Your task to perform on an android device: Clear the cart on costco.com. Add sony triple a to the cart on costco.com Image 0: 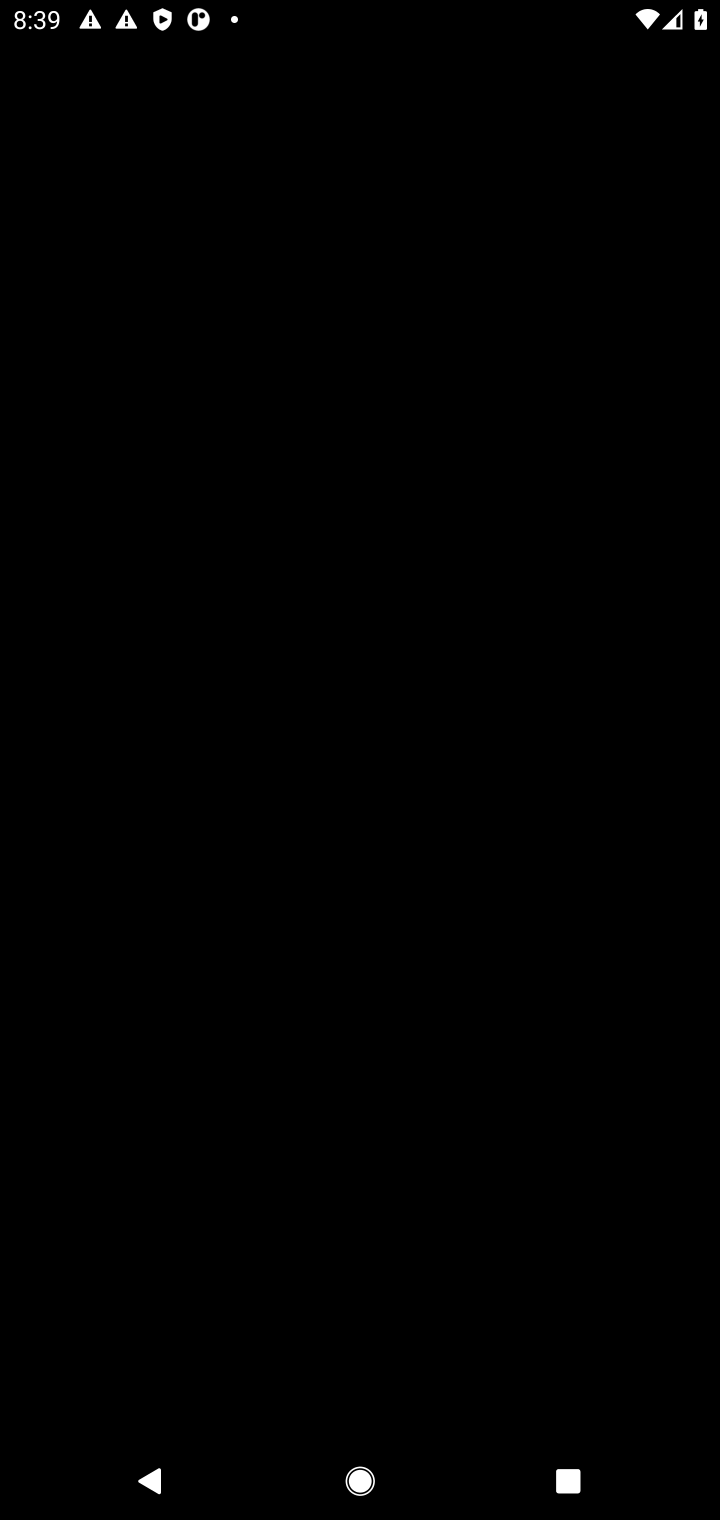
Step 0: press home button
Your task to perform on an android device: Clear the cart on costco.com. Add sony triple a to the cart on costco.com Image 1: 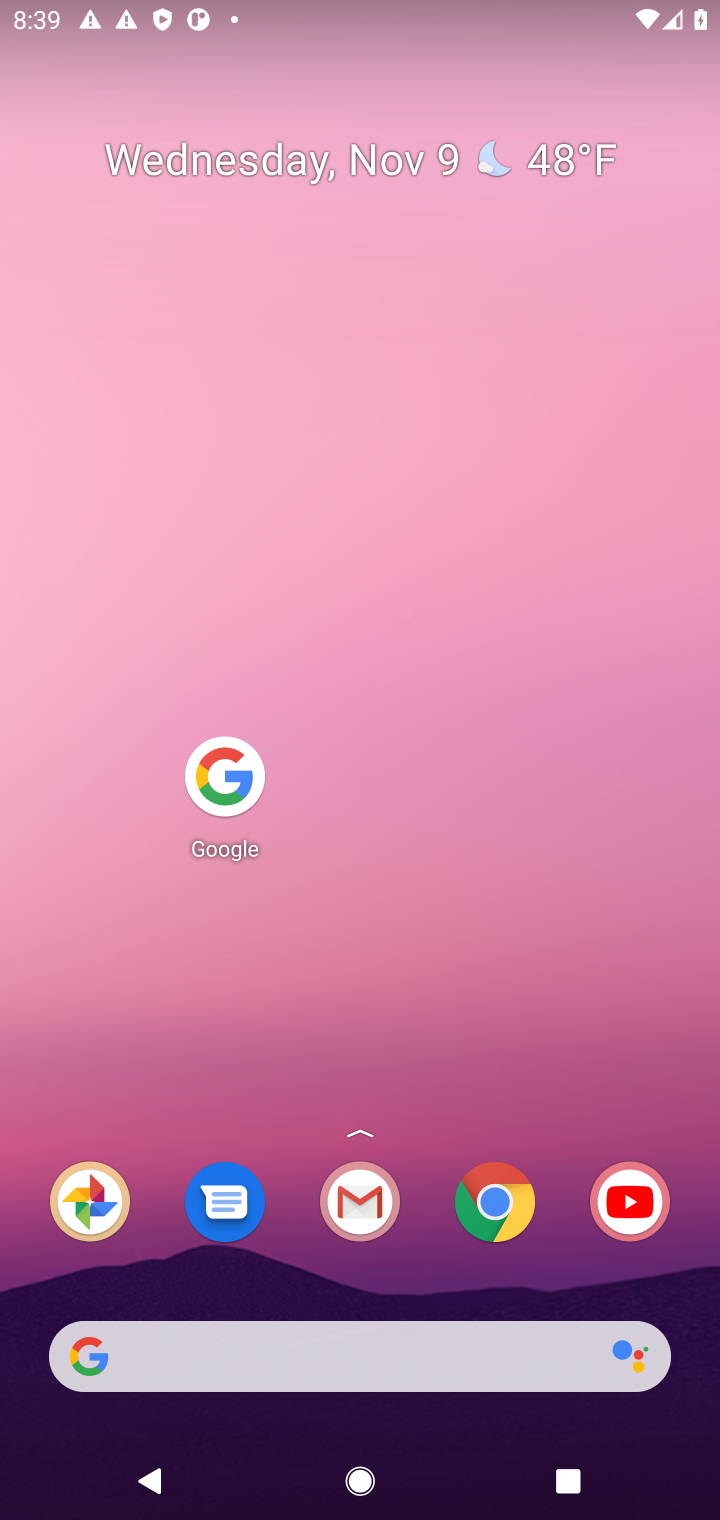
Step 1: click (231, 771)
Your task to perform on an android device: Clear the cart on costco.com. Add sony triple a to the cart on costco.com Image 2: 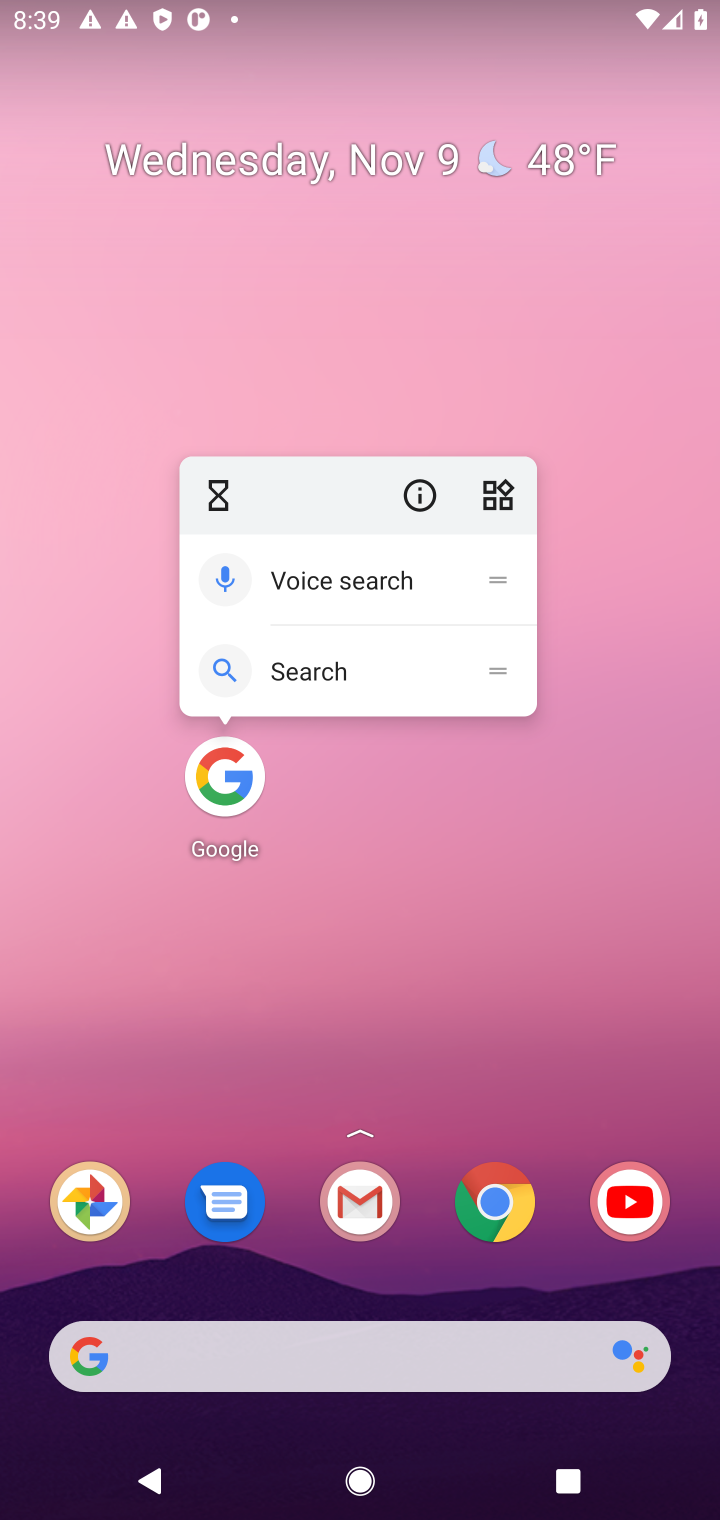
Step 2: click (231, 771)
Your task to perform on an android device: Clear the cart on costco.com. Add sony triple a to the cart on costco.com Image 3: 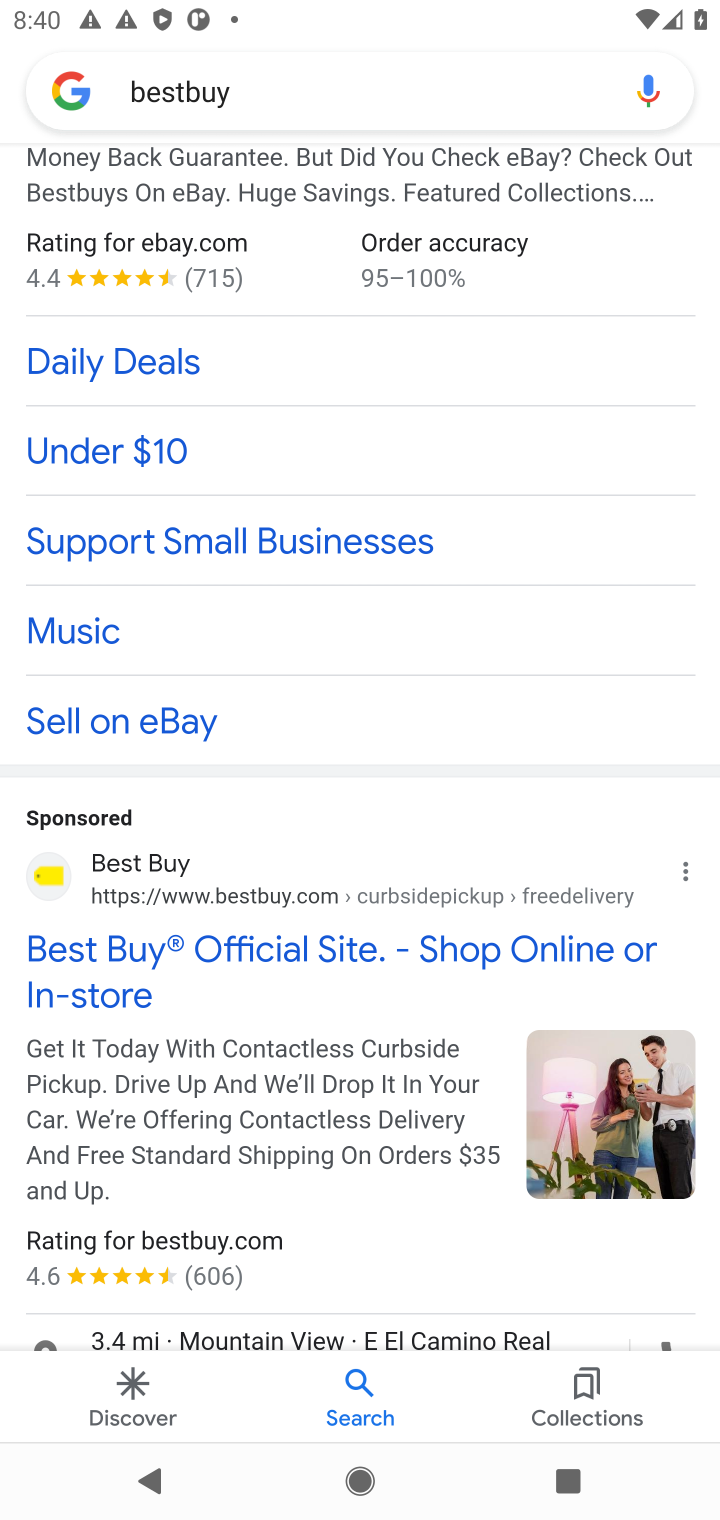
Step 3: click (316, 102)
Your task to perform on an android device: Clear the cart on costco.com. Add sony triple a to the cart on costco.com Image 4: 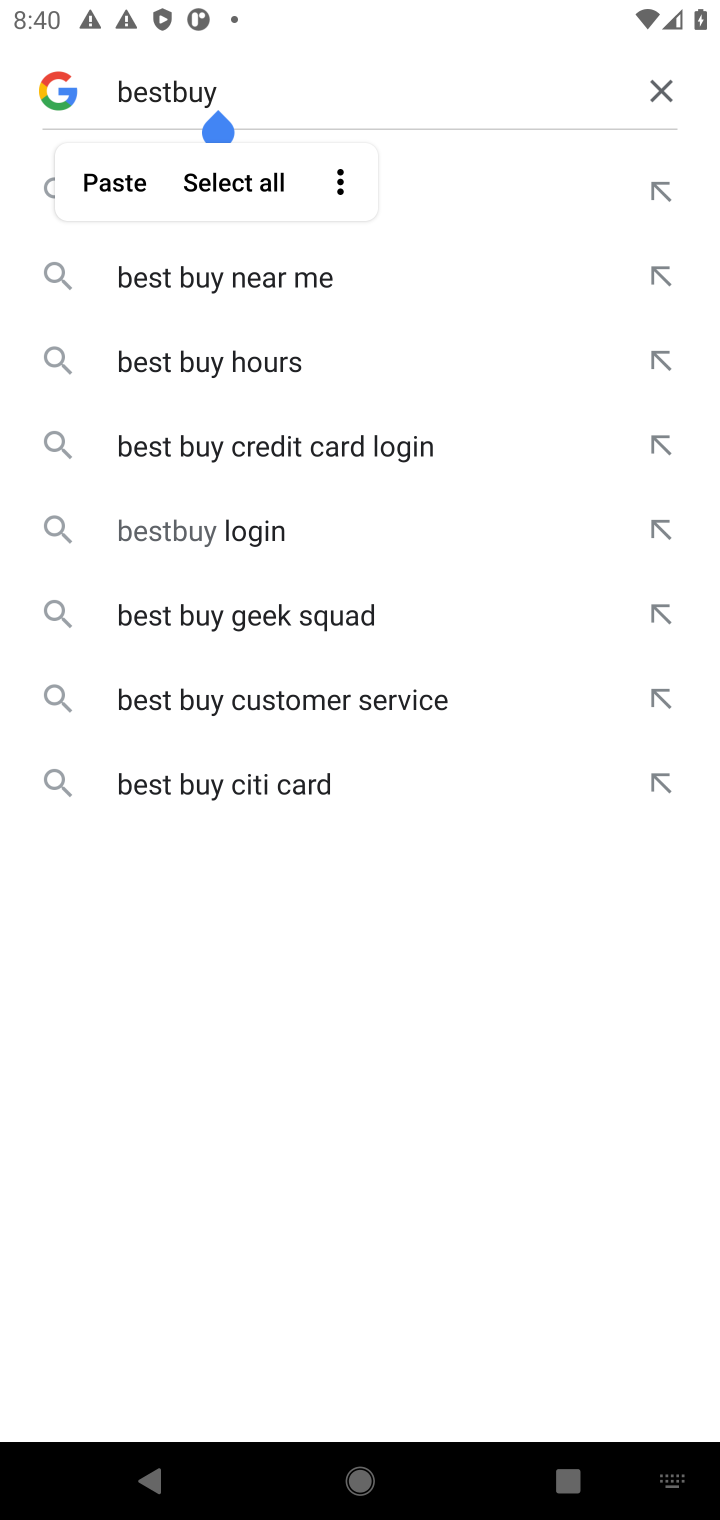
Step 4: click (677, 86)
Your task to perform on an android device: Clear the cart on costco.com. Add sony triple a to the cart on costco.com Image 5: 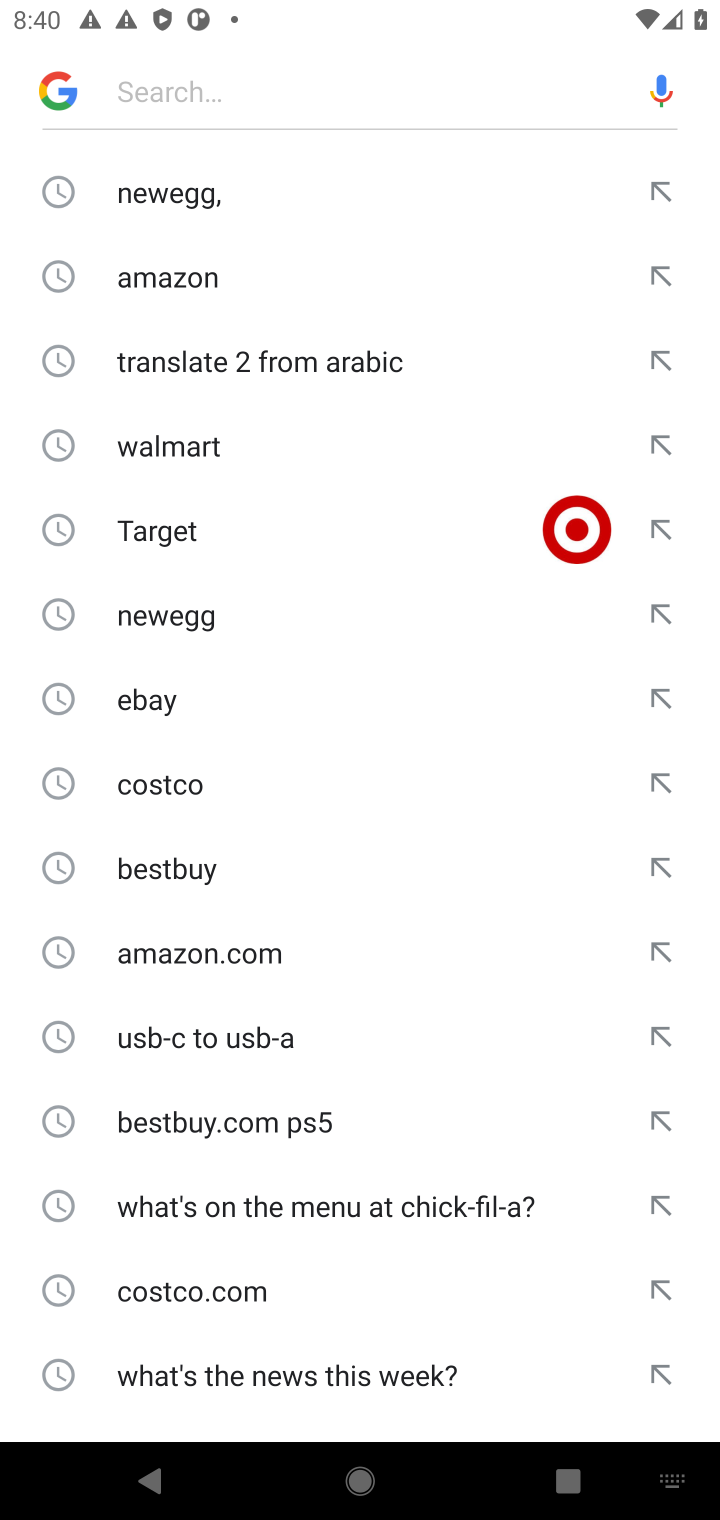
Step 5: click (143, 786)
Your task to perform on an android device: Clear the cart on costco.com. Add sony triple a to the cart on costco.com Image 6: 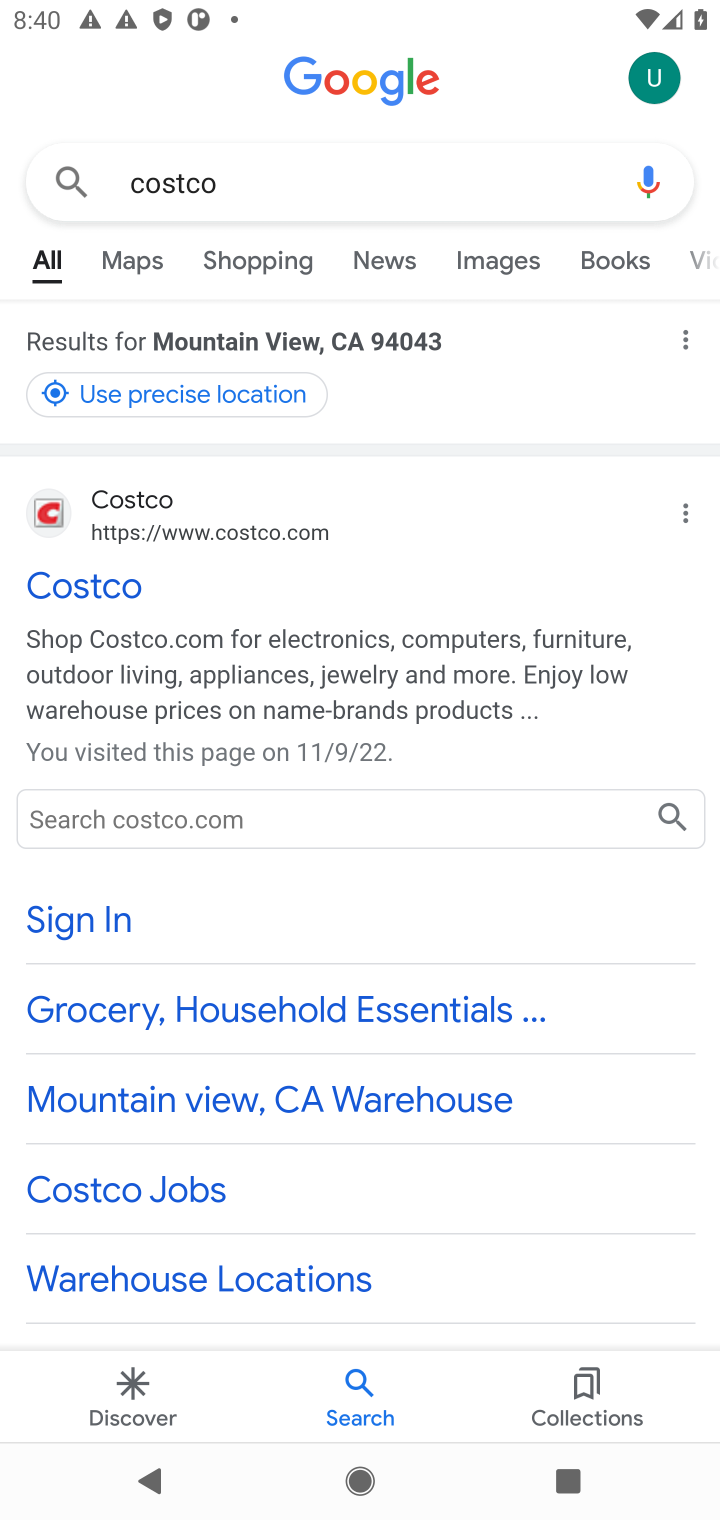
Step 6: click (52, 589)
Your task to perform on an android device: Clear the cart on costco.com. Add sony triple a to the cart on costco.com Image 7: 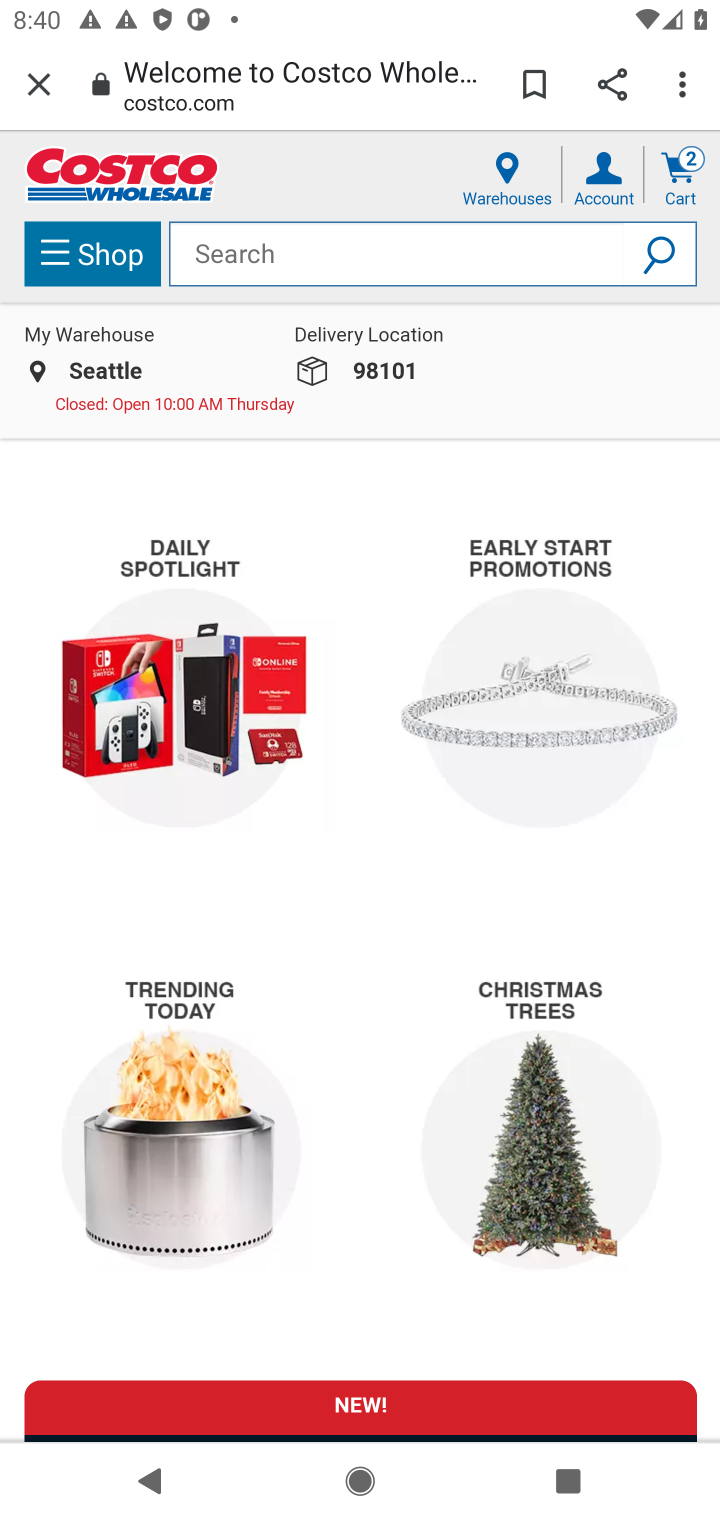
Step 7: click (350, 237)
Your task to perform on an android device: Clear the cart on costco.com. Add sony triple a to the cart on costco.com Image 8: 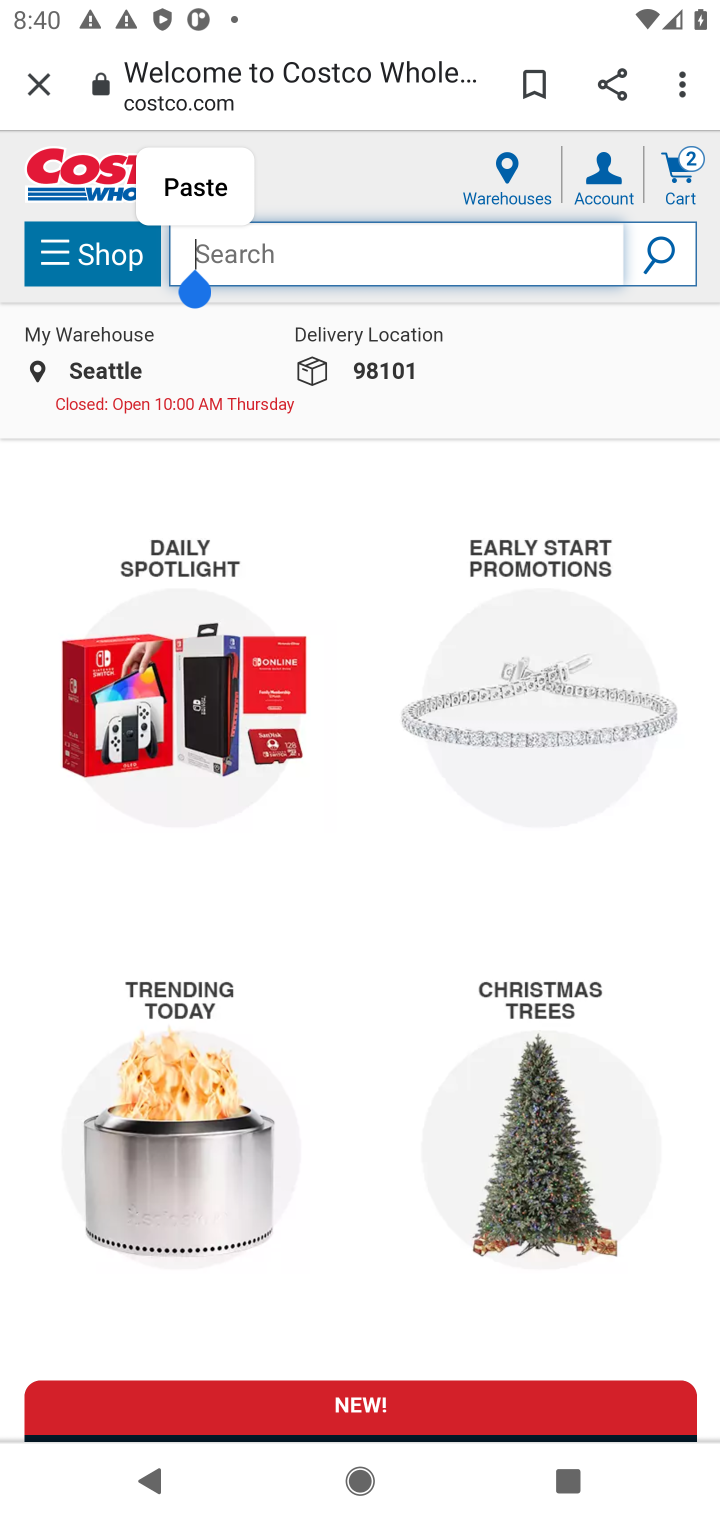
Step 8: type "sony triple a"
Your task to perform on an android device: Clear the cart on costco.com. Add sony triple a to the cart on costco.com Image 9: 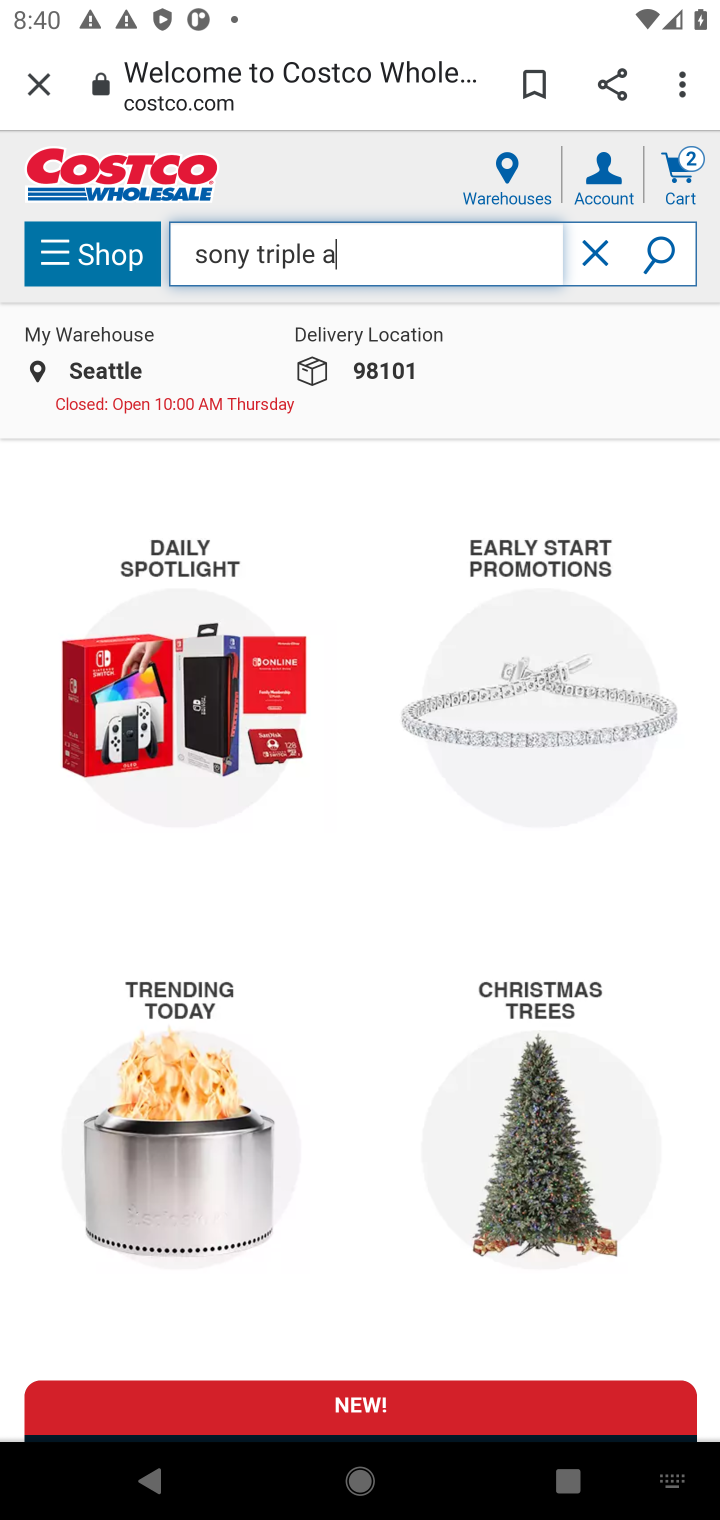
Step 9: press enter
Your task to perform on an android device: Clear the cart on costco.com. Add sony triple a to the cart on costco.com Image 10: 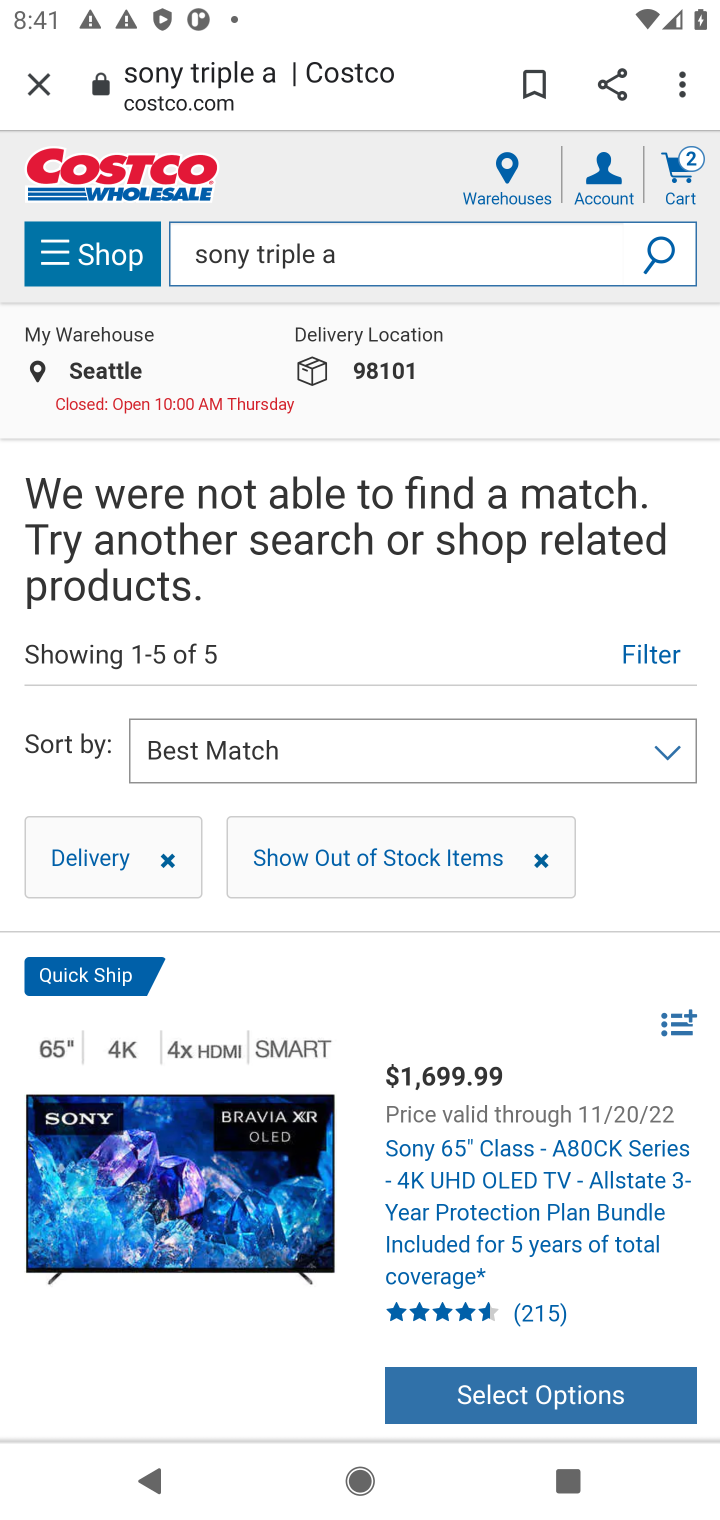
Step 10: task complete